Your task to perform on an android device: uninstall "Google Calendar" Image 0: 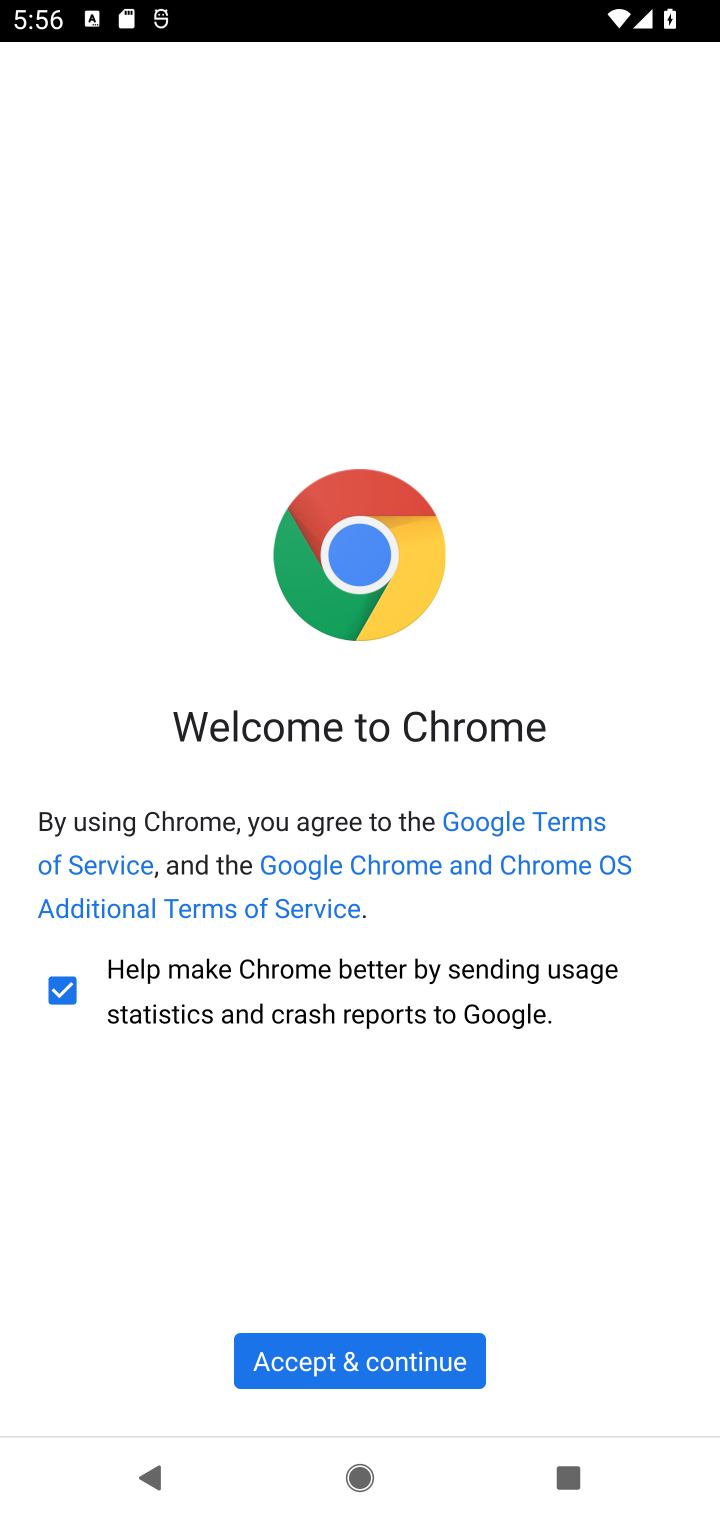
Step 0: press home button
Your task to perform on an android device: uninstall "Google Calendar" Image 1: 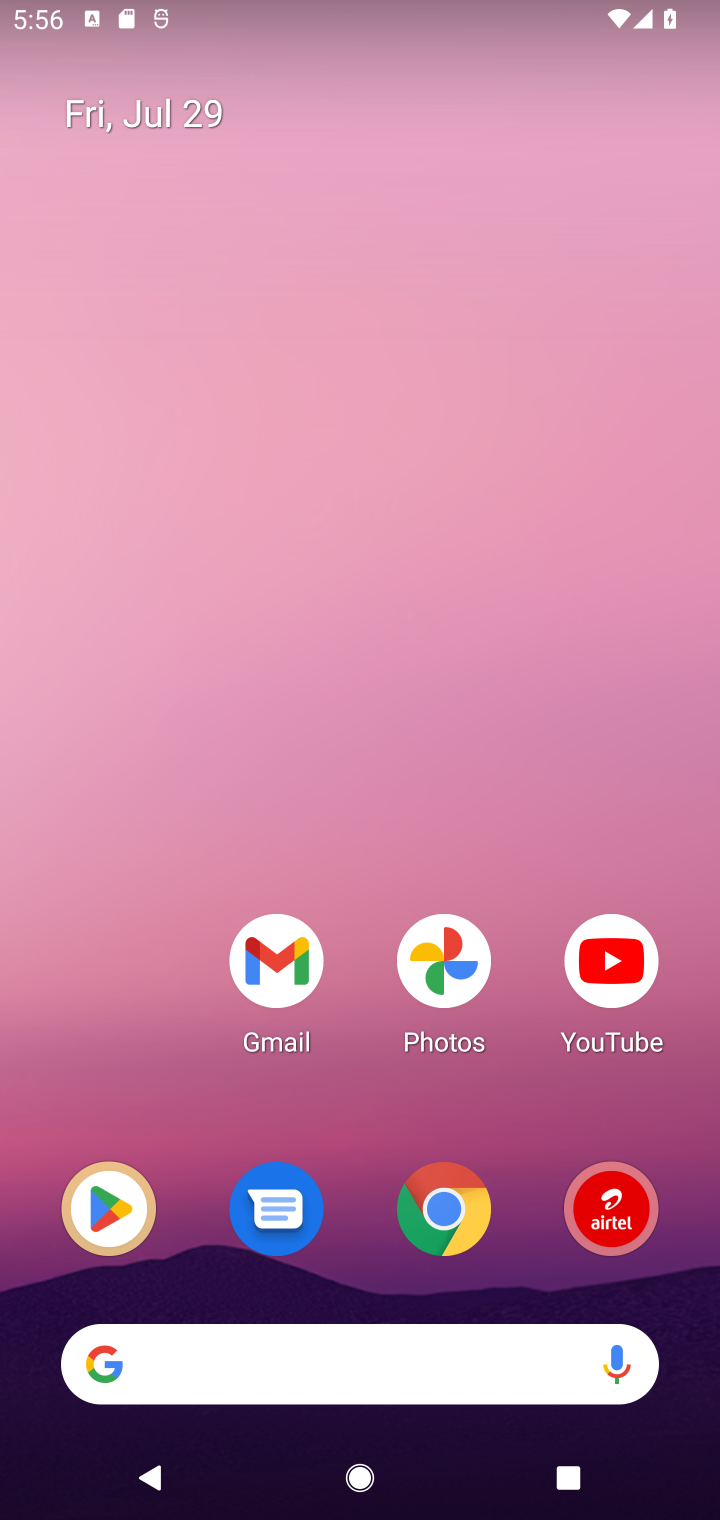
Step 1: click (138, 1228)
Your task to perform on an android device: uninstall "Google Calendar" Image 2: 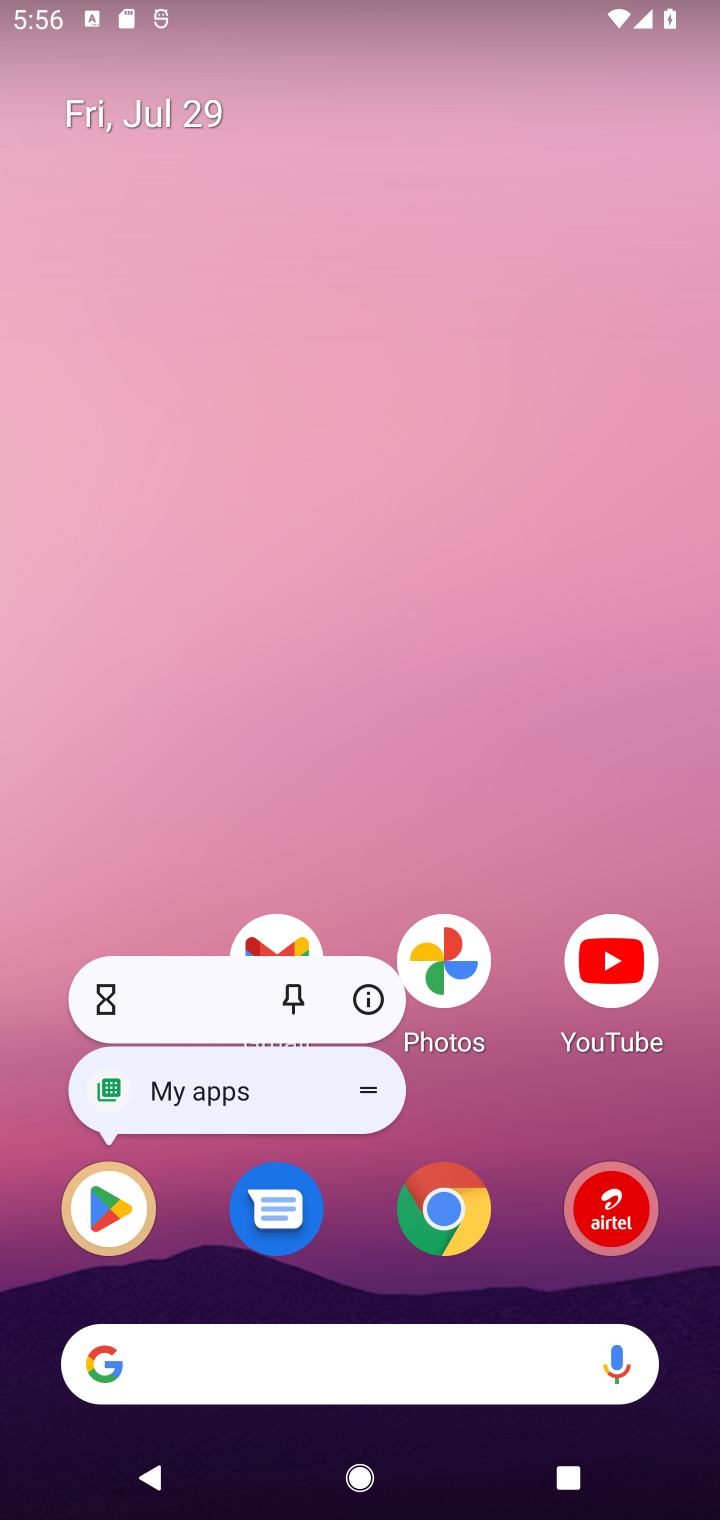
Step 2: click (104, 1225)
Your task to perform on an android device: uninstall "Google Calendar" Image 3: 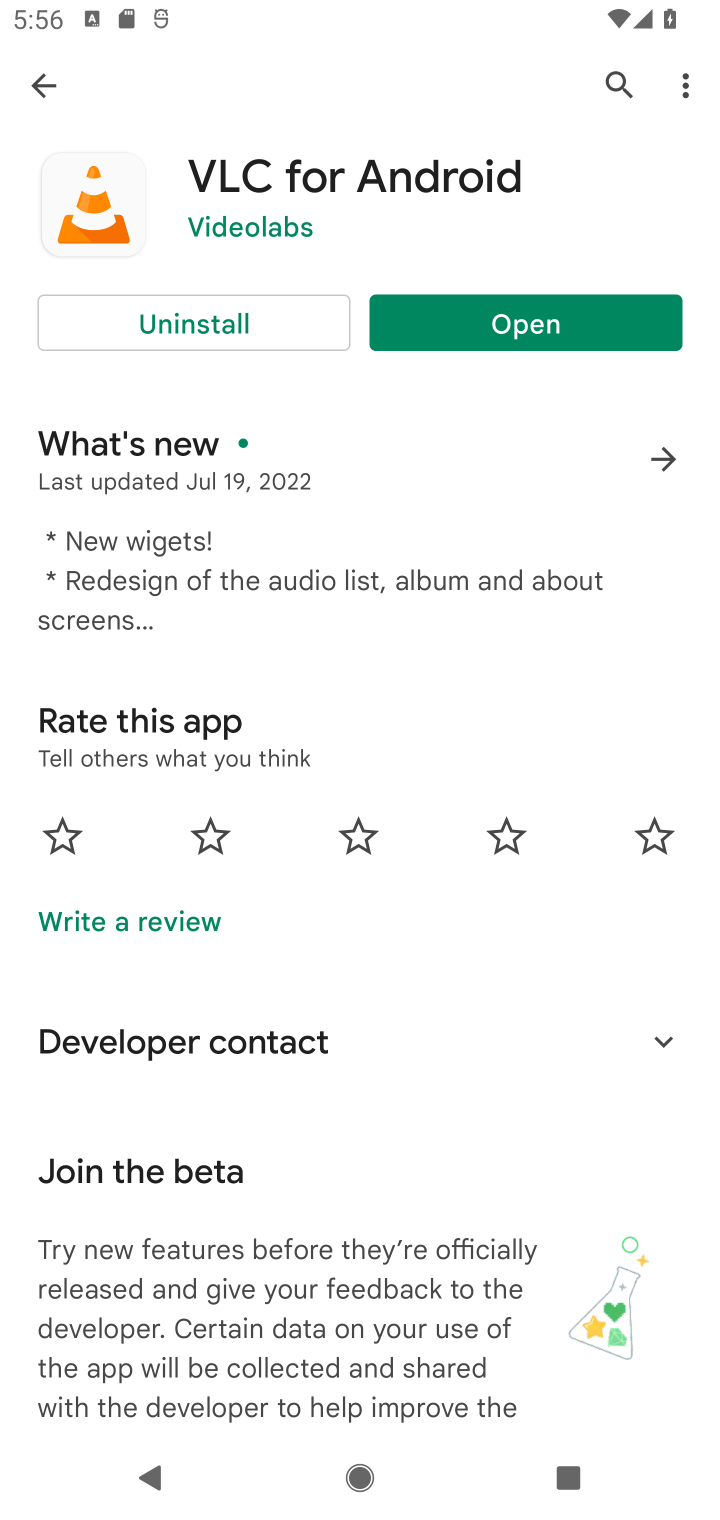
Step 3: click (612, 87)
Your task to perform on an android device: uninstall "Google Calendar" Image 4: 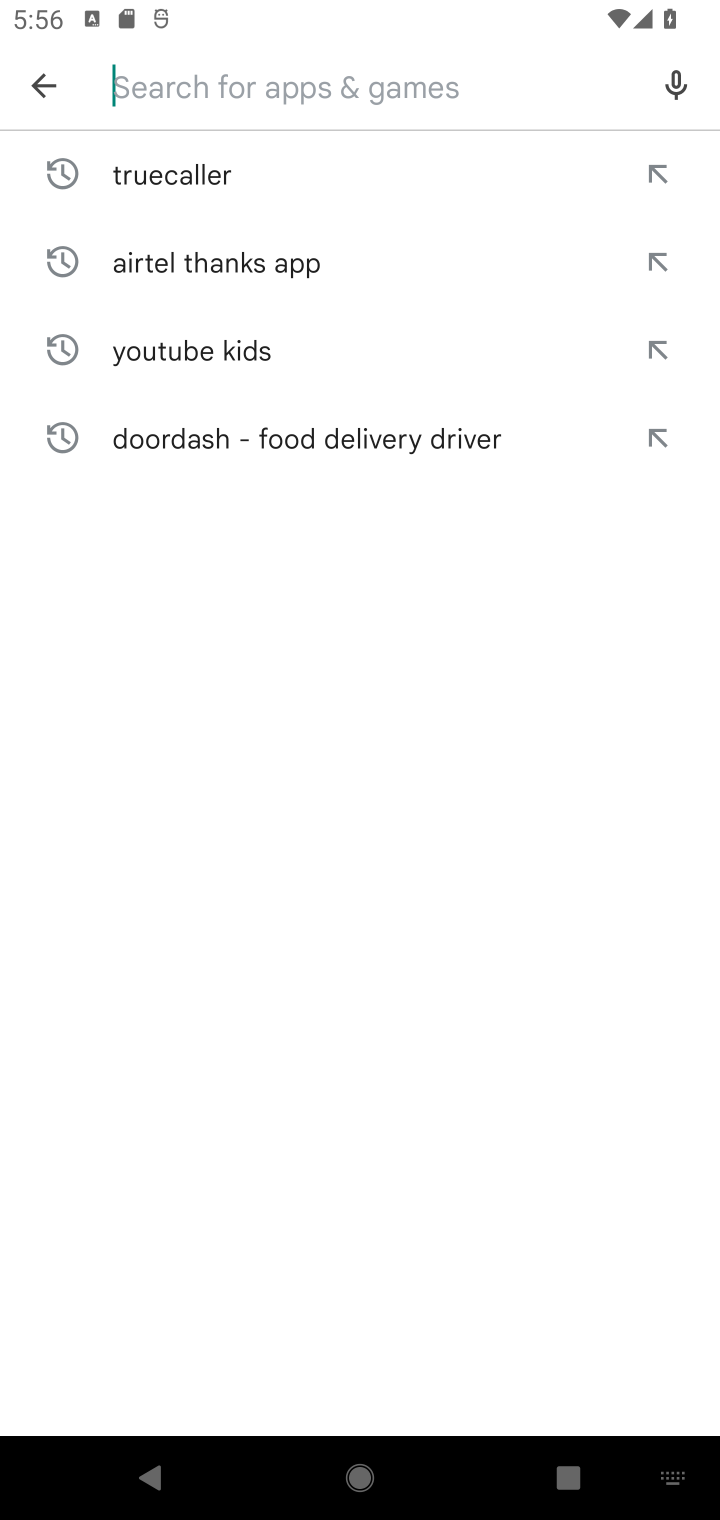
Step 4: click (516, 85)
Your task to perform on an android device: uninstall "Google Calendar" Image 5: 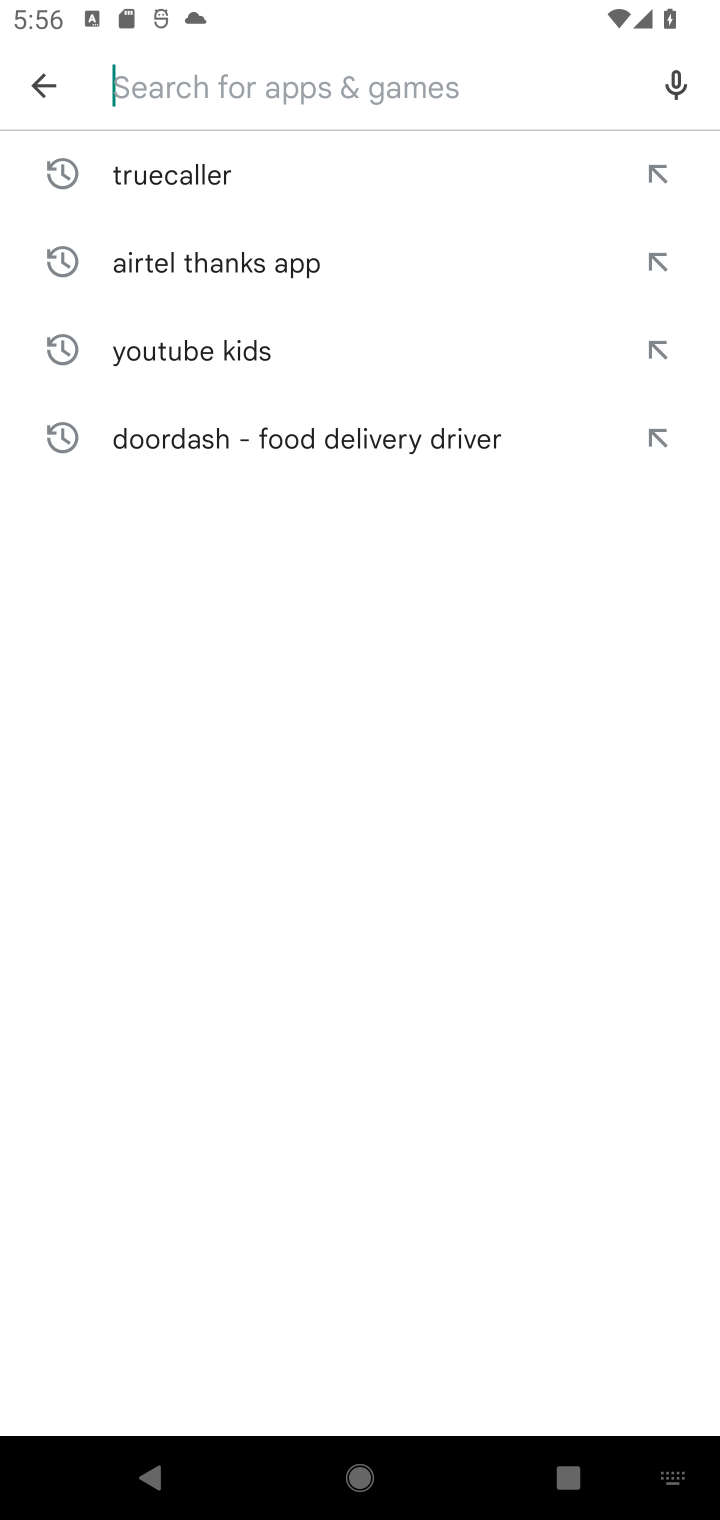
Step 5: type "Google Calendar"
Your task to perform on an android device: uninstall "Google Calendar" Image 6: 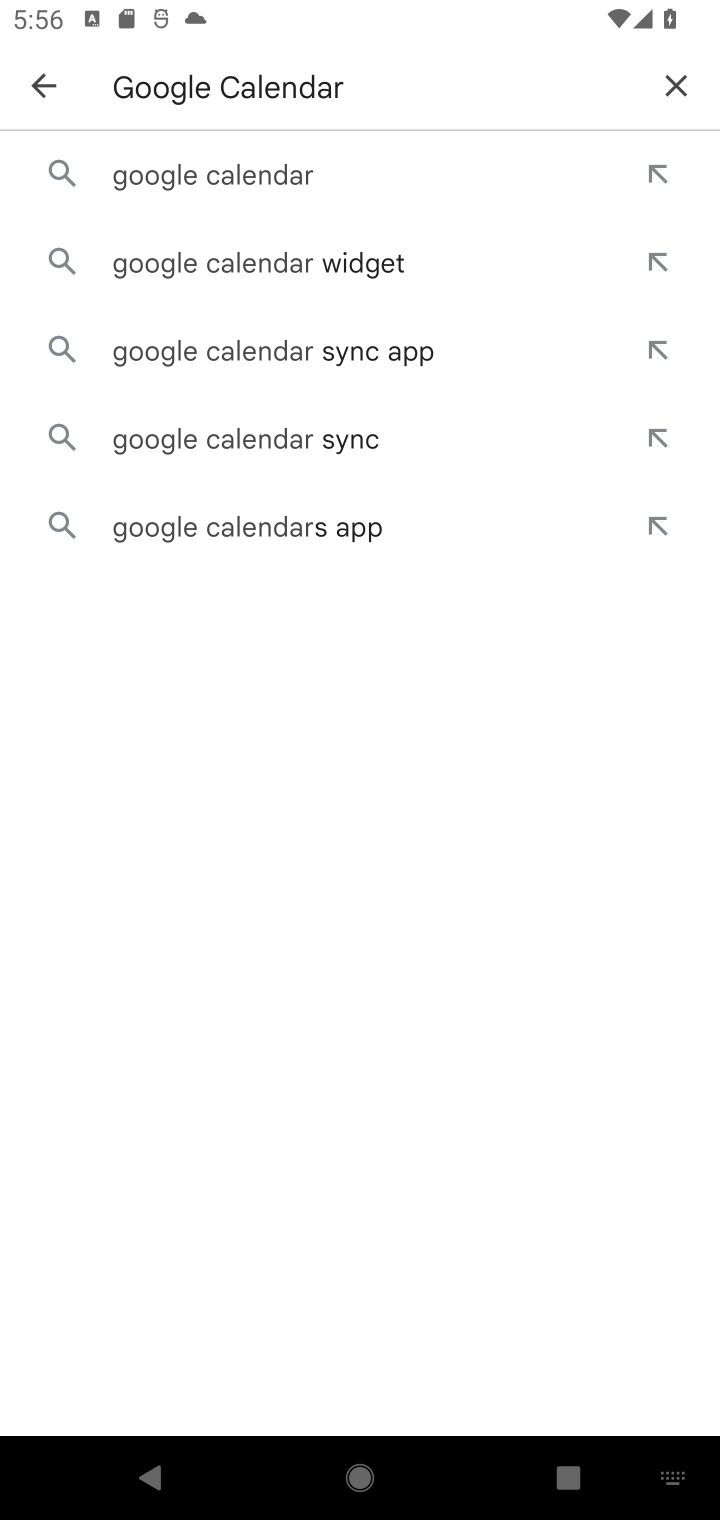
Step 6: click (141, 192)
Your task to perform on an android device: uninstall "Google Calendar" Image 7: 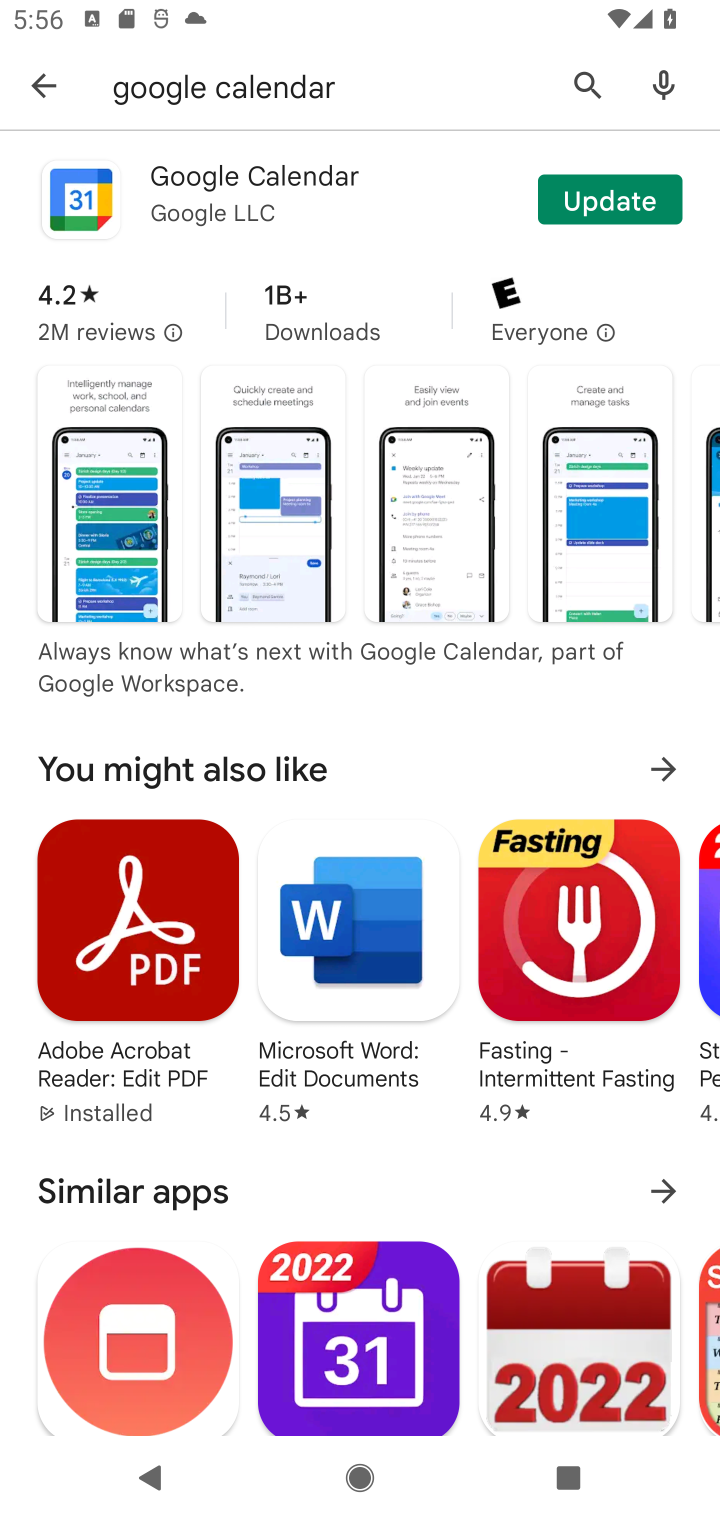
Step 7: click (102, 193)
Your task to perform on an android device: uninstall "Google Calendar" Image 8: 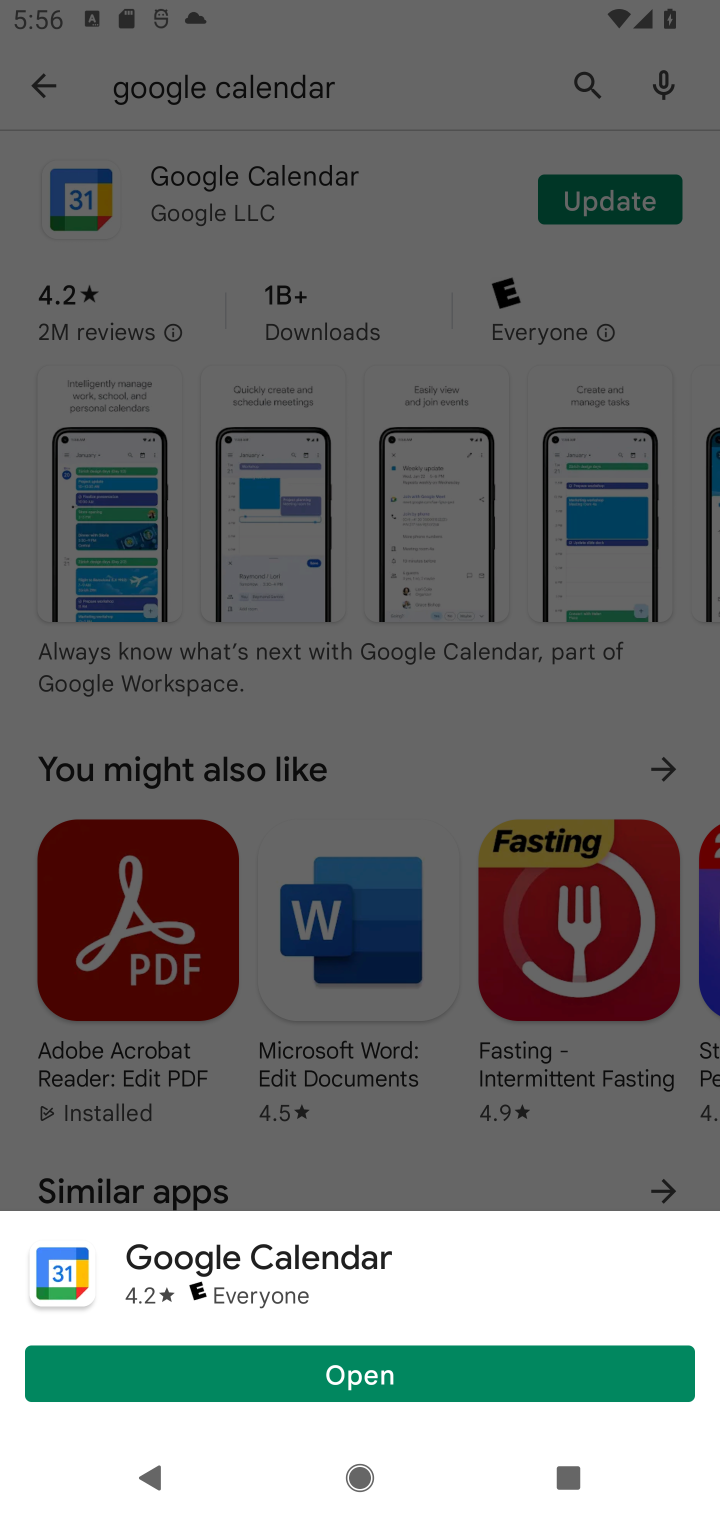
Step 8: click (356, 1381)
Your task to perform on an android device: uninstall "Google Calendar" Image 9: 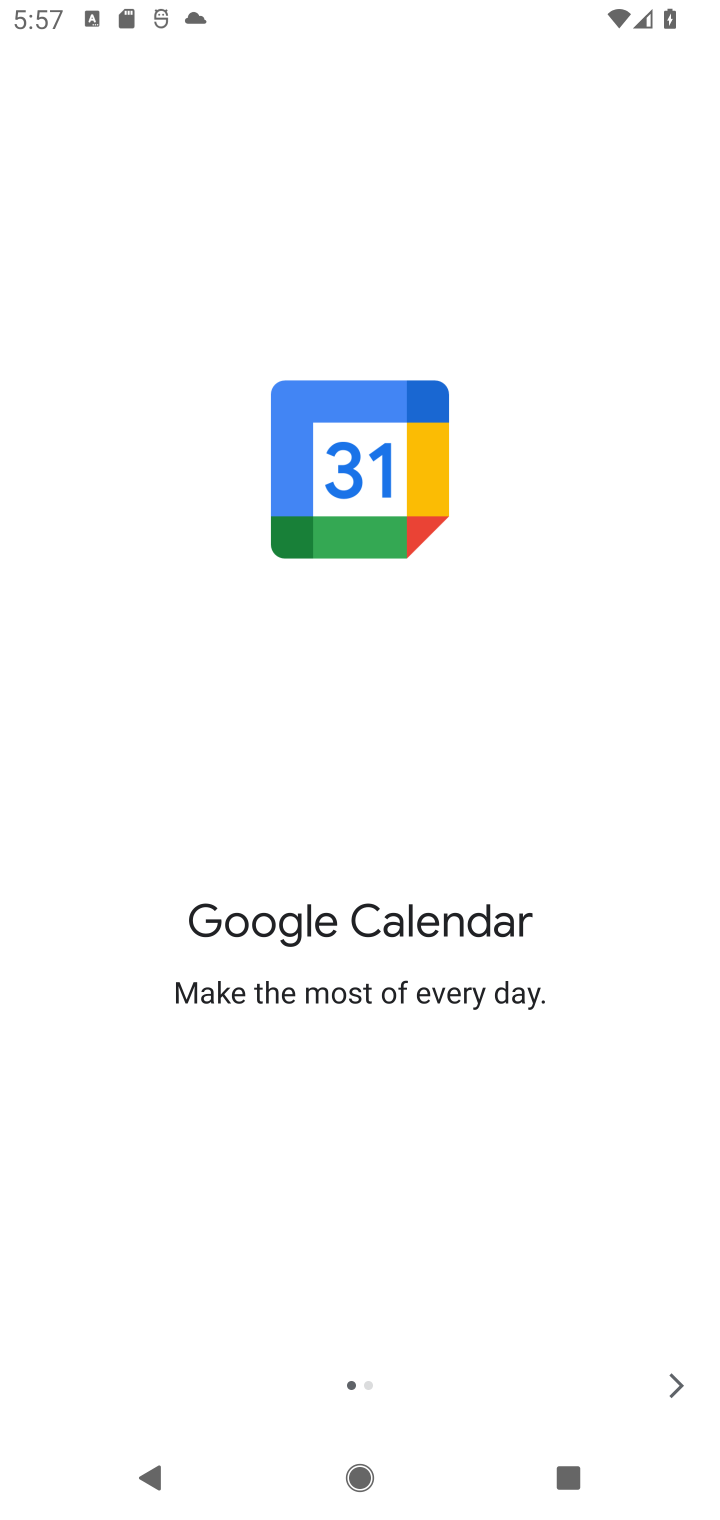
Step 9: press home button
Your task to perform on an android device: uninstall "Google Calendar" Image 10: 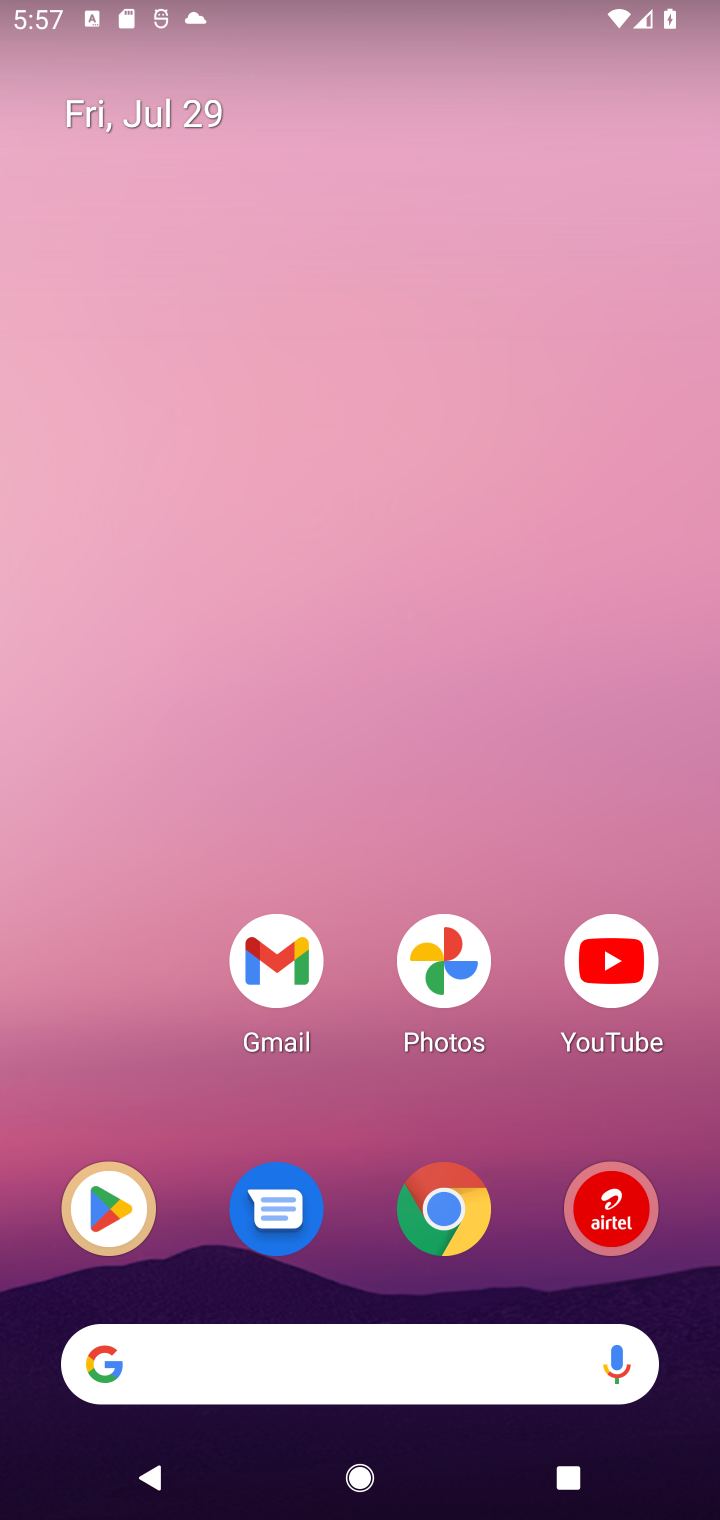
Step 10: drag from (366, 1119) to (371, 16)
Your task to perform on an android device: uninstall "Google Calendar" Image 11: 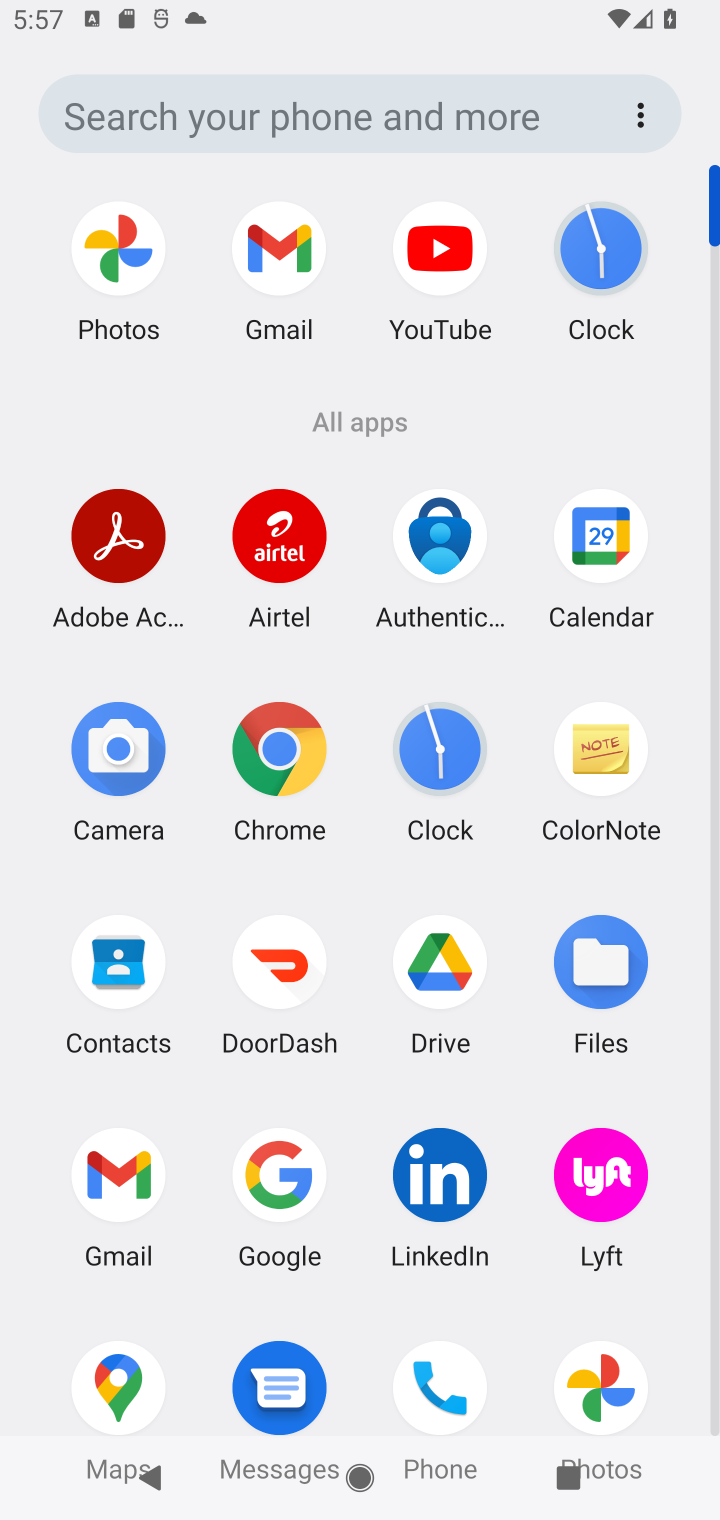
Step 11: click (598, 546)
Your task to perform on an android device: uninstall "Google Calendar" Image 12: 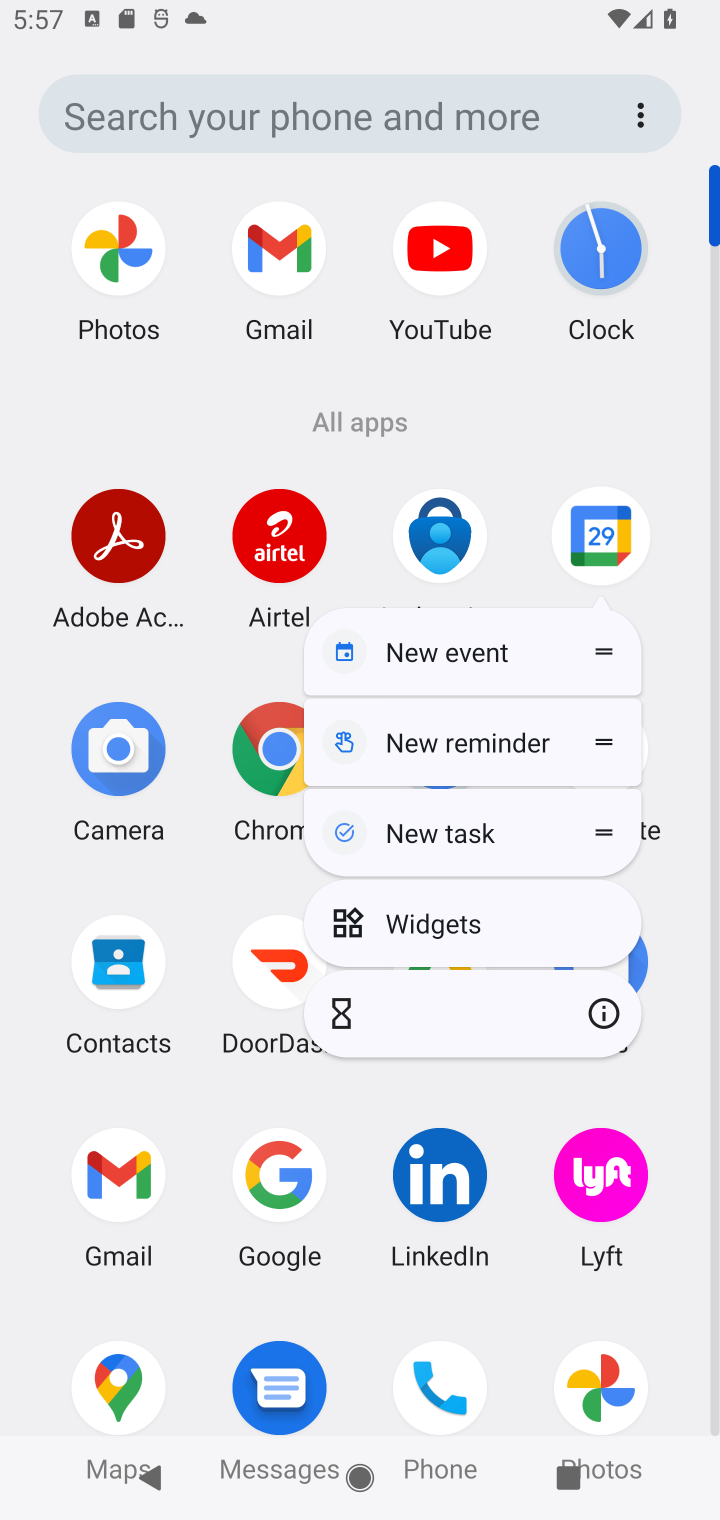
Step 12: click (598, 546)
Your task to perform on an android device: uninstall "Google Calendar" Image 13: 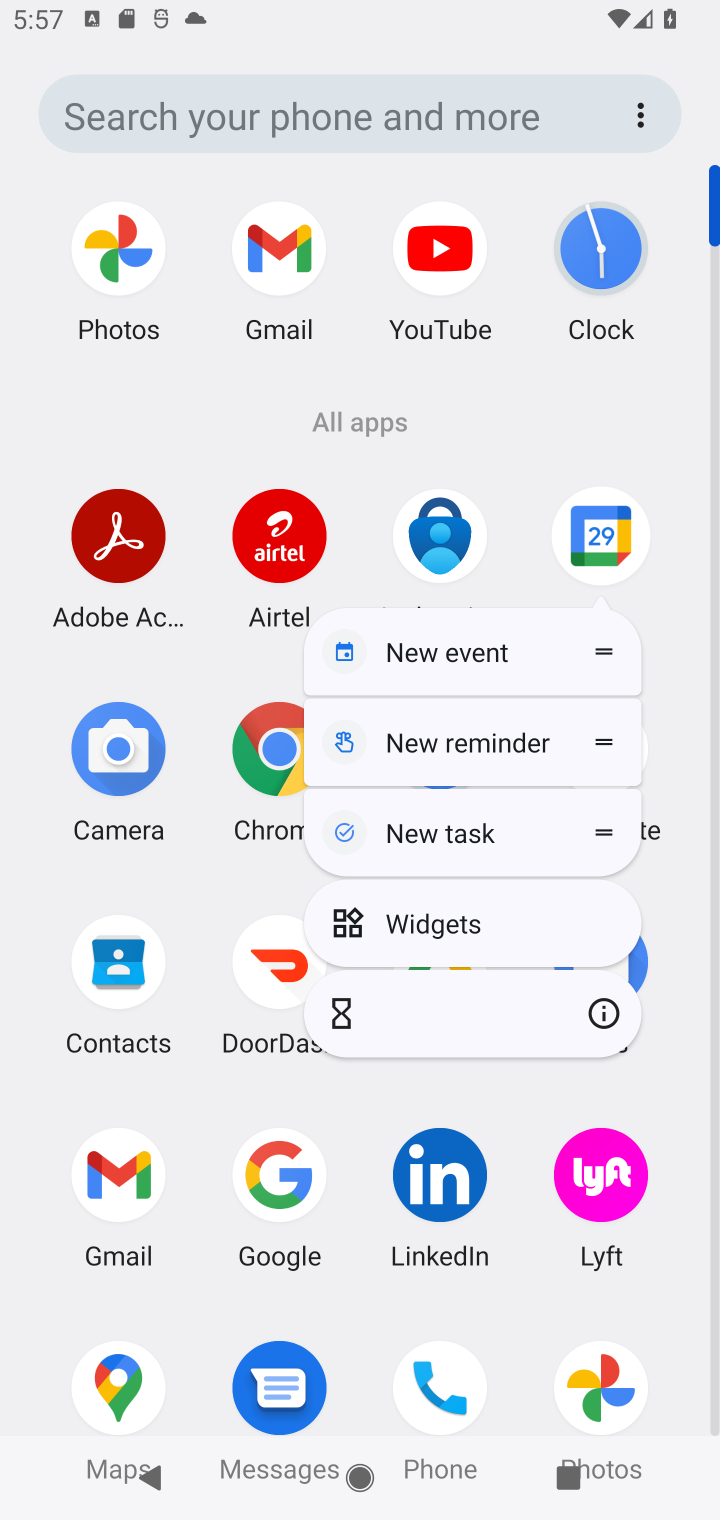
Step 13: click (612, 519)
Your task to perform on an android device: uninstall "Google Calendar" Image 14: 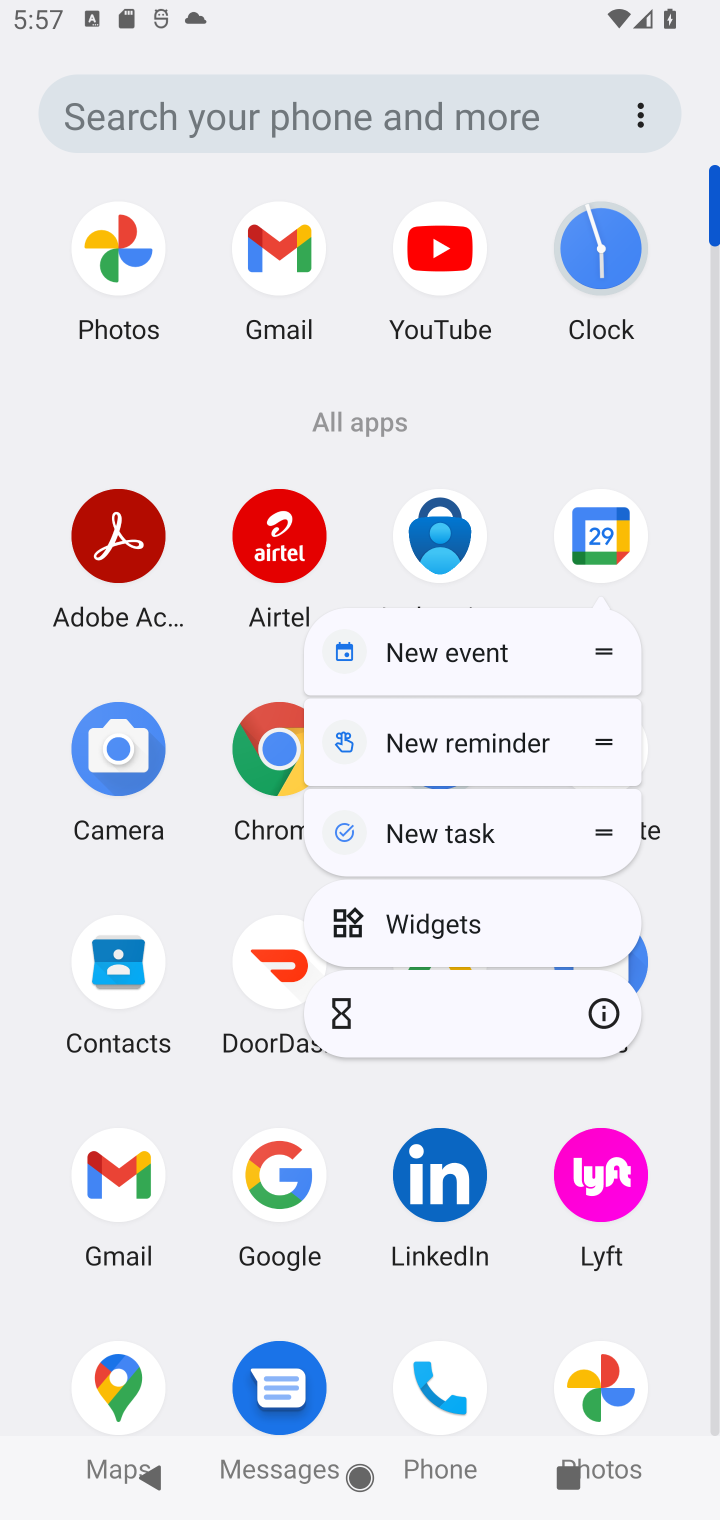
Step 14: click (601, 533)
Your task to perform on an android device: uninstall "Google Calendar" Image 15: 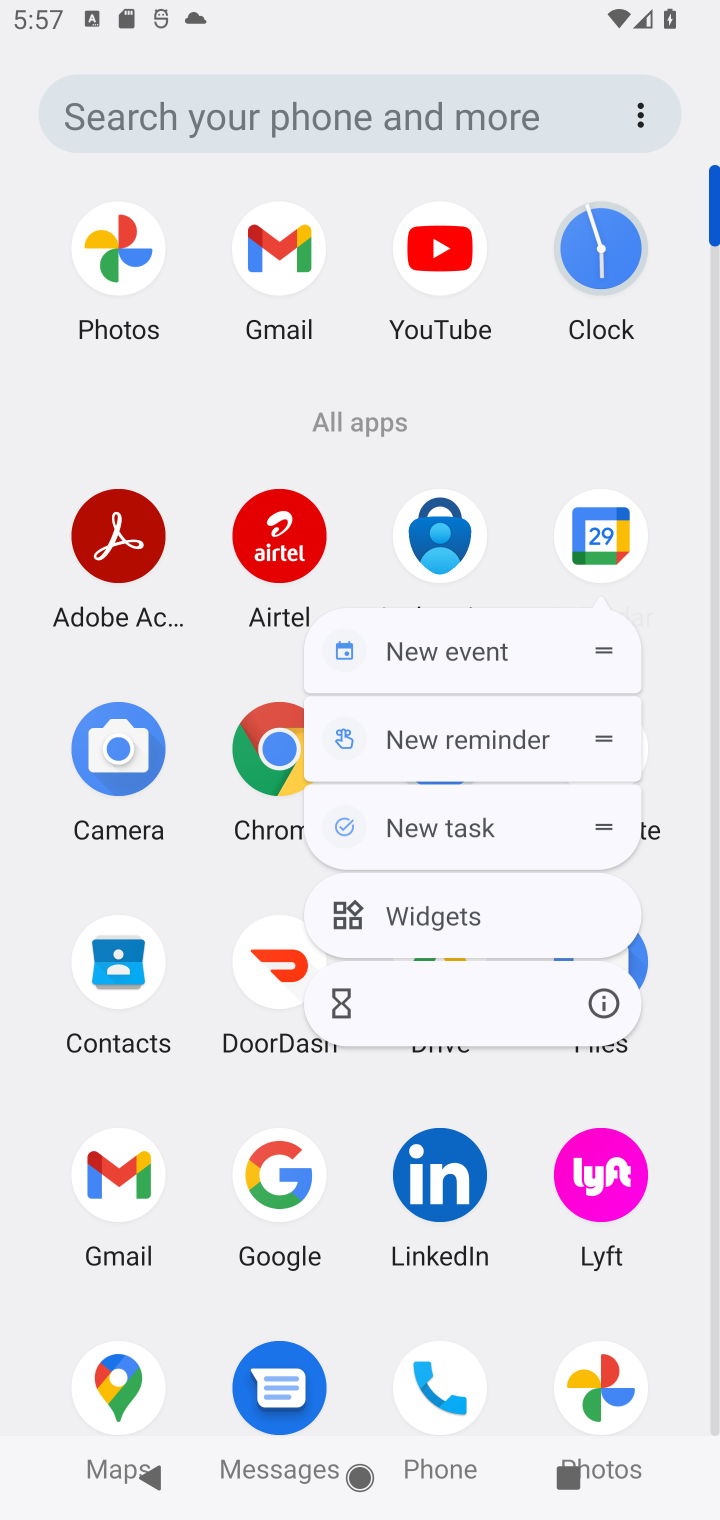
Step 15: drag from (601, 533) to (564, 353)
Your task to perform on an android device: uninstall "Google Calendar" Image 16: 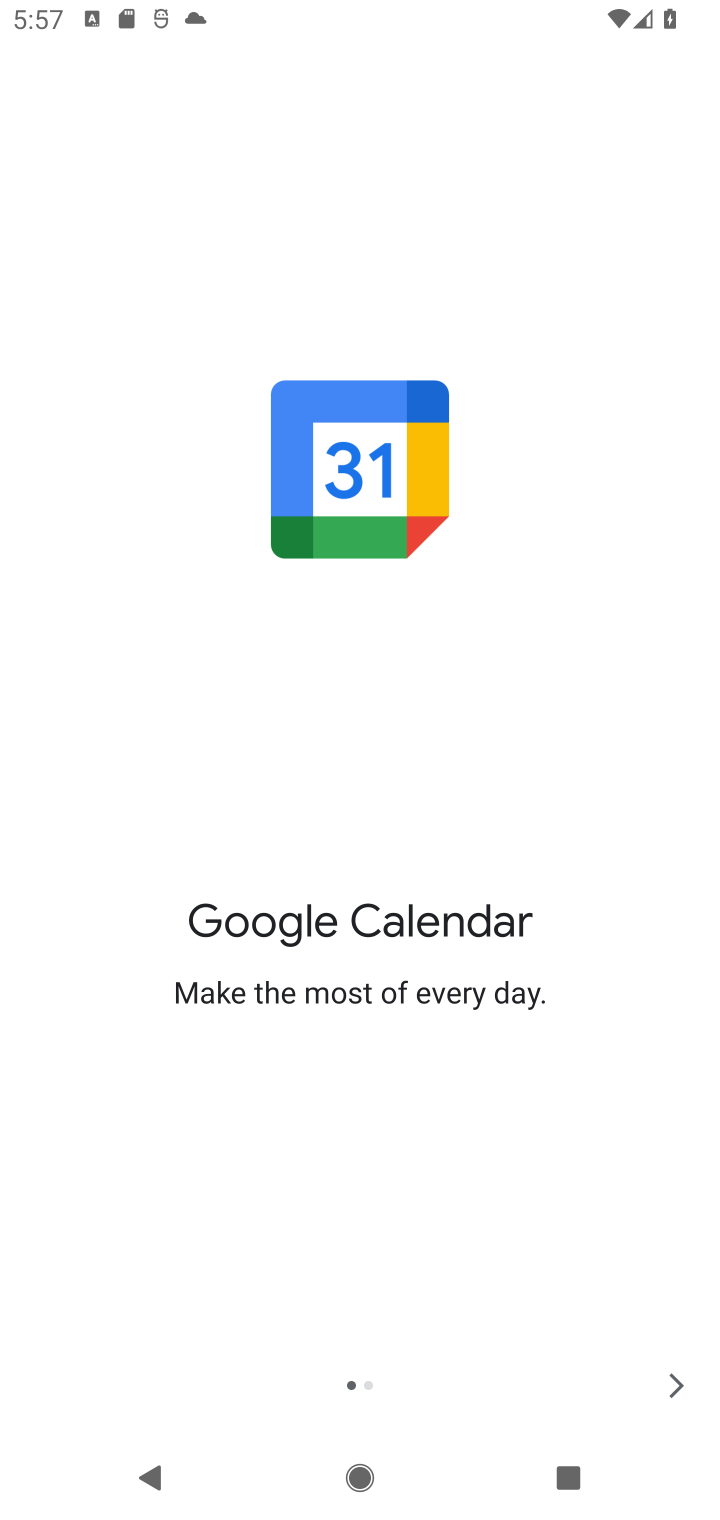
Step 16: press home button
Your task to perform on an android device: uninstall "Google Calendar" Image 17: 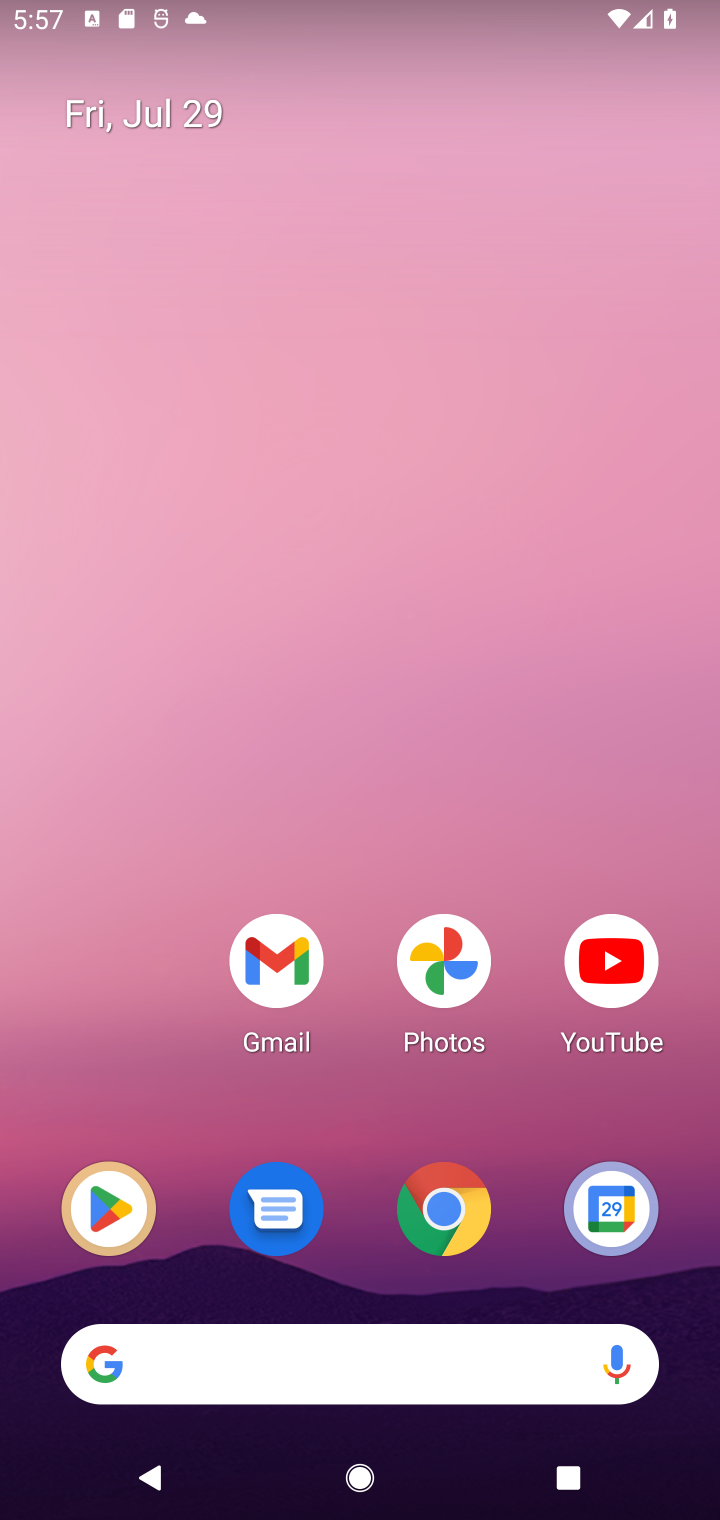
Step 17: drag from (469, 1055) to (399, 9)
Your task to perform on an android device: uninstall "Google Calendar" Image 18: 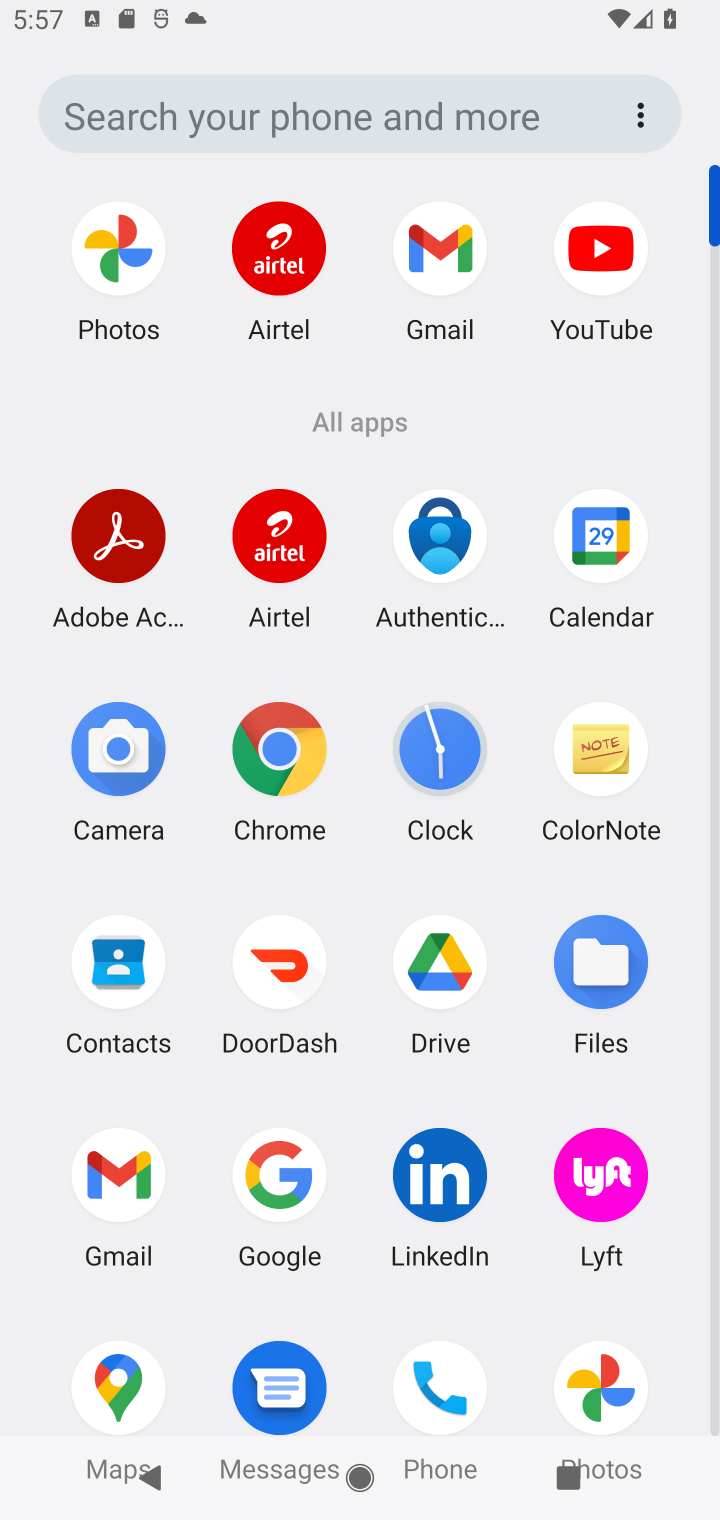
Step 18: drag from (596, 551) to (383, 114)
Your task to perform on an android device: uninstall "Google Calendar" Image 19: 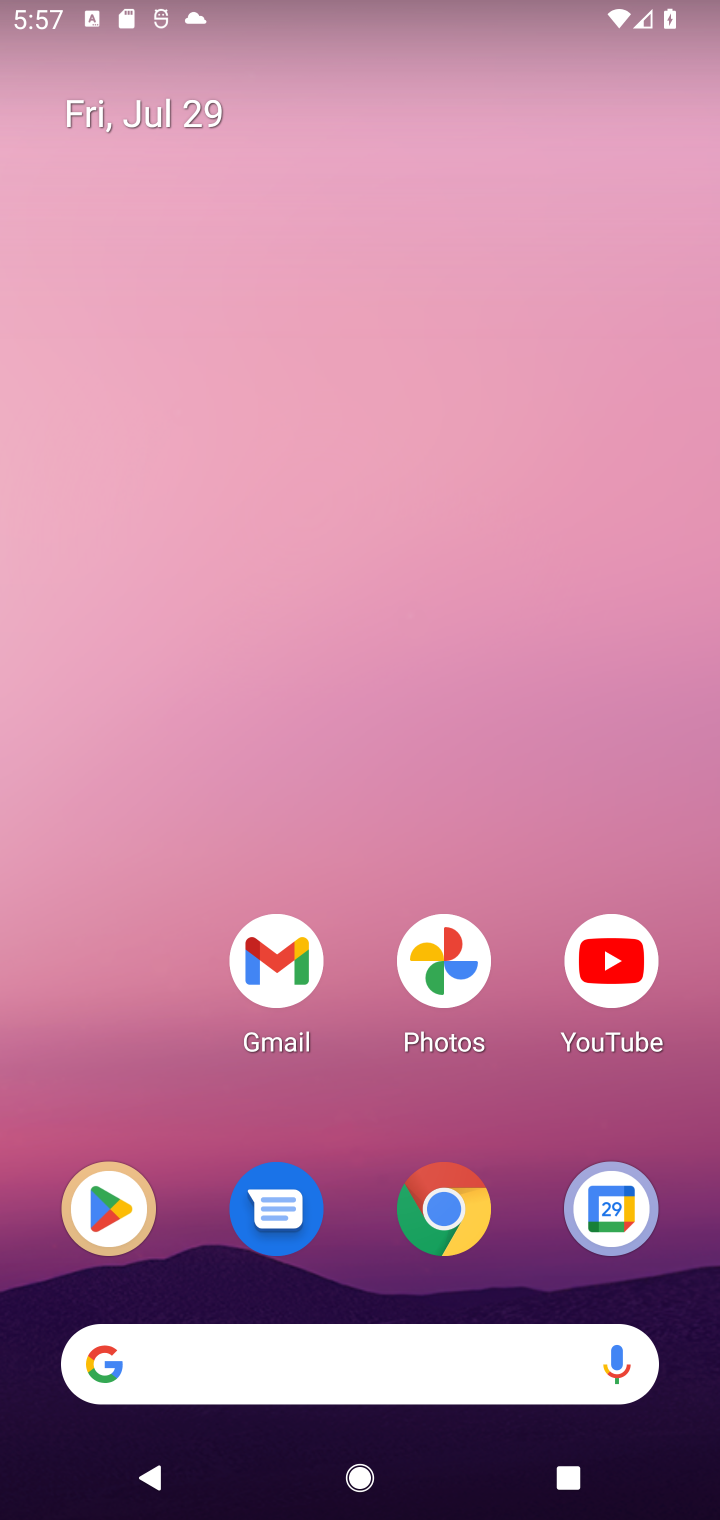
Step 19: drag from (491, 793) to (470, 95)
Your task to perform on an android device: uninstall "Google Calendar" Image 20: 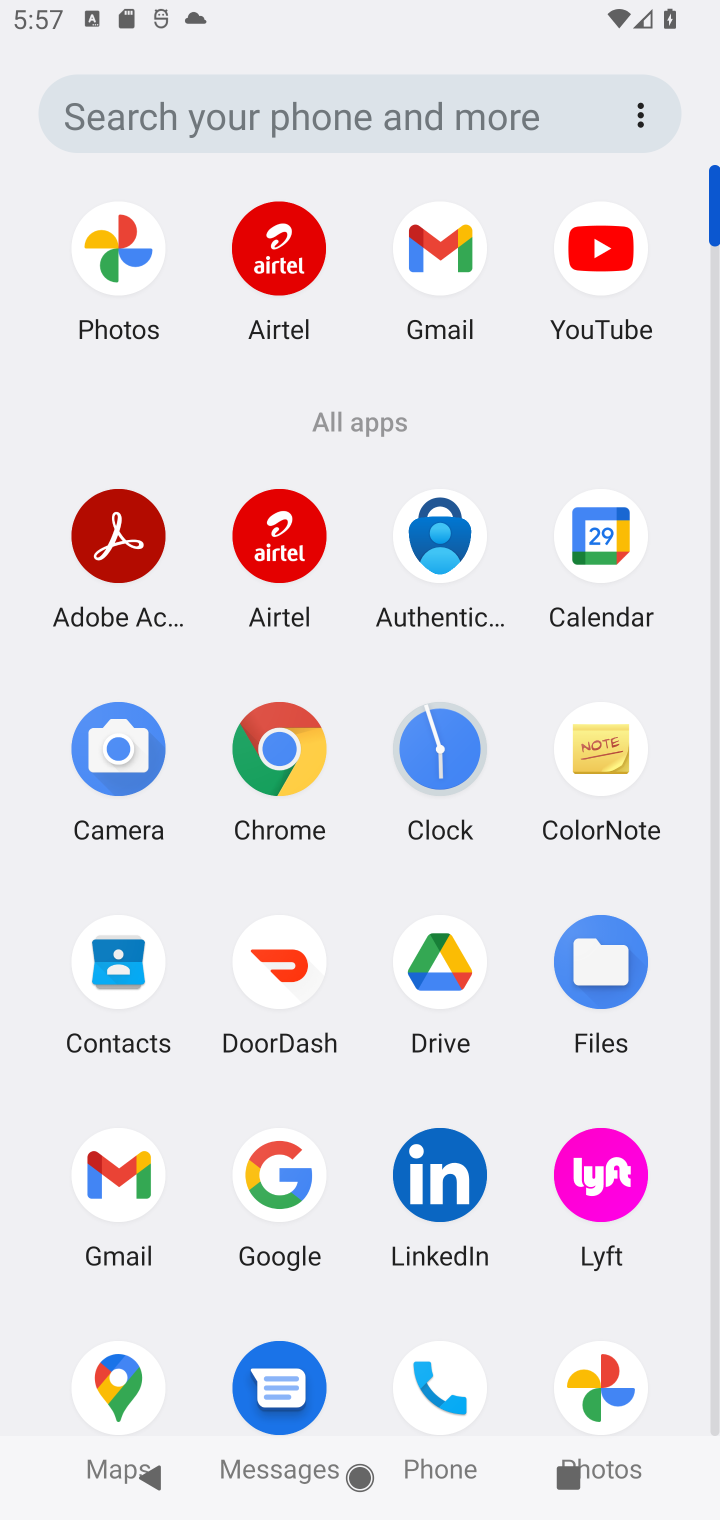
Step 20: click (598, 531)
Your task to perform on an android device: uninstall "Google Calendar" Image 21: 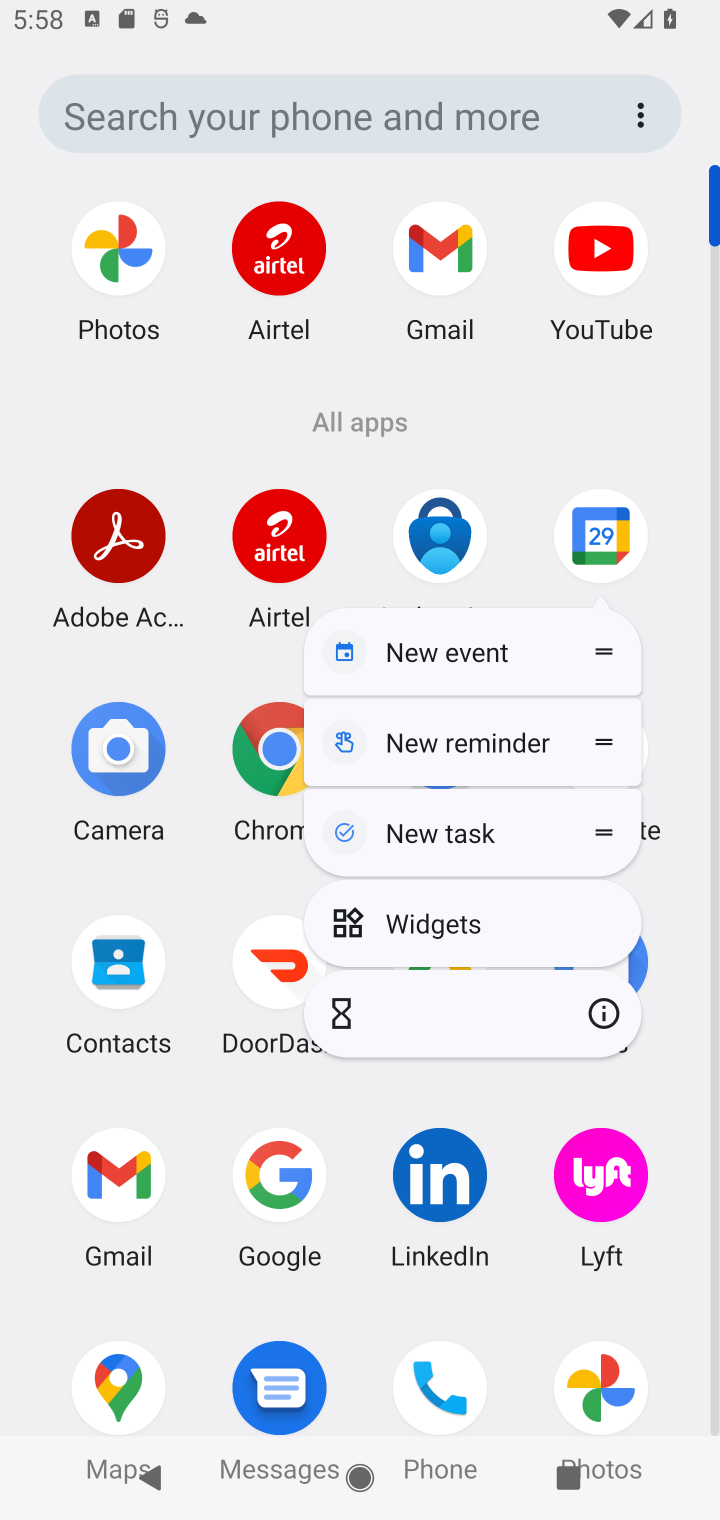
Step 21: click (610, 1014)
Your task to perform on an android device: uninstall "Google Calendar" Image 22: 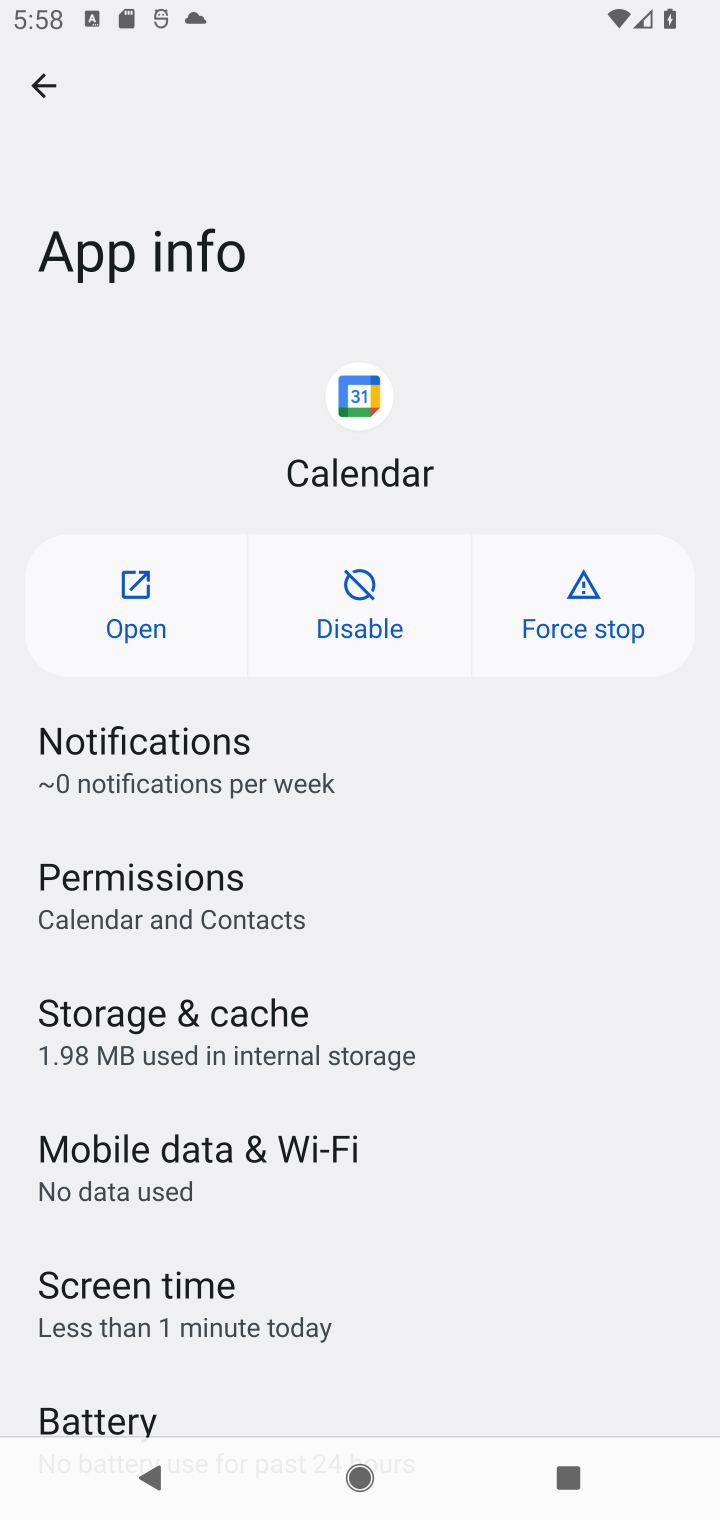
Step 22: task complete